Your task to perform on an android device: Do I have any events this weekend? Image 0: 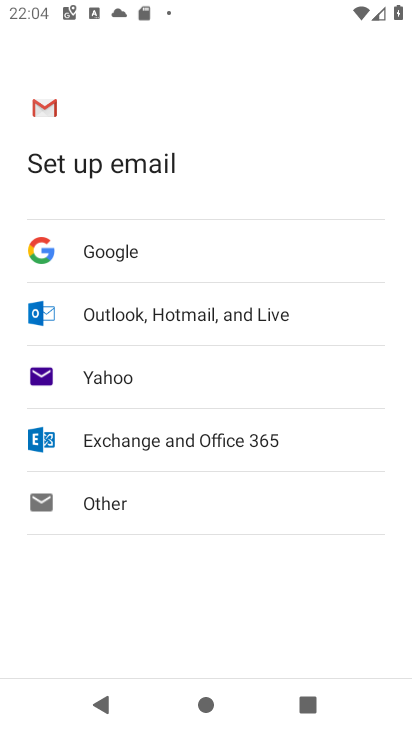
Step 0: press home button
Your task to perform on an android device: Do I have any events this weekend? Image 1: 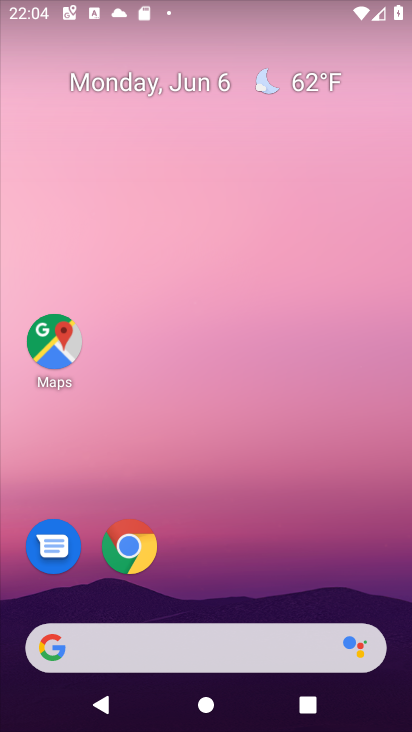
Step 1: drag from (380, 607) to (239, 148)
Your task to perform on an android device: Do I have any events this weekend? Image 2: 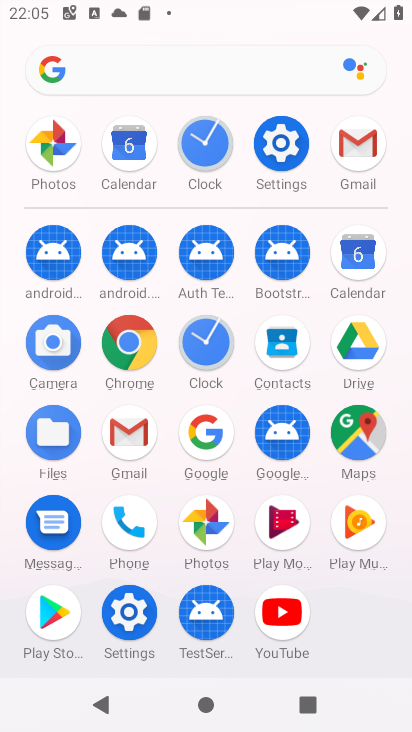
Step 2: click (361, 258)
Your task to perform on an android device: Do I have any events this weekend? Image 3: 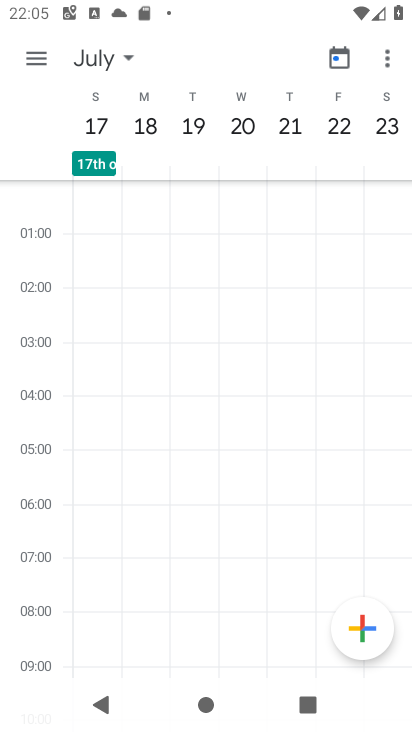
Step 3: click (121, 55)
Your task to perform on an android device: Do I have any events this weekend? Image 4: 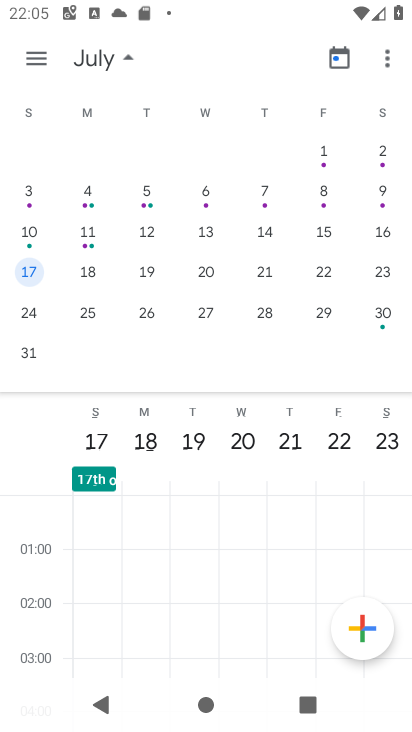
Step 4: drag from (92, 308) to (377, 294)
Your task to perform on an android device: Do I have any events this weekend? Image 5: 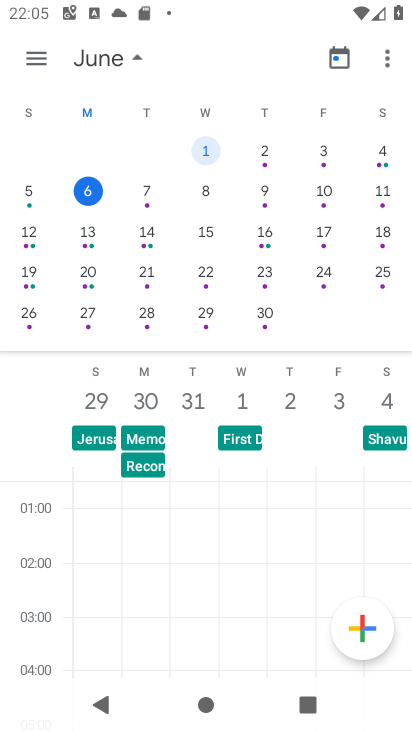
Step 5: click (85, 189)
Your task to perform on an android device: Do I have any events this weekend? Image 6: 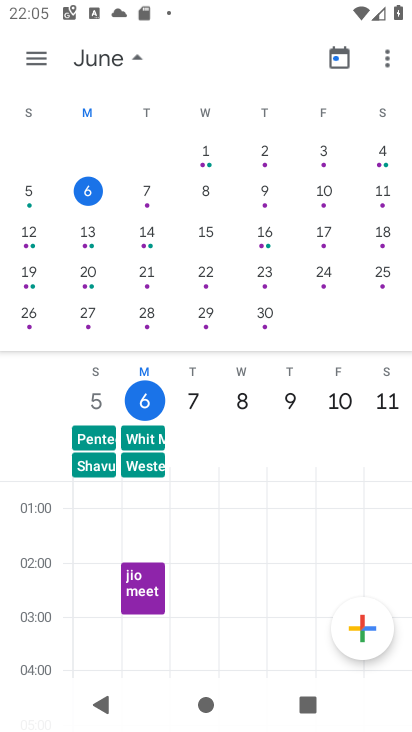
Step 6: task complete